Your task to perform on an android device: Open Google Maps Image 0: 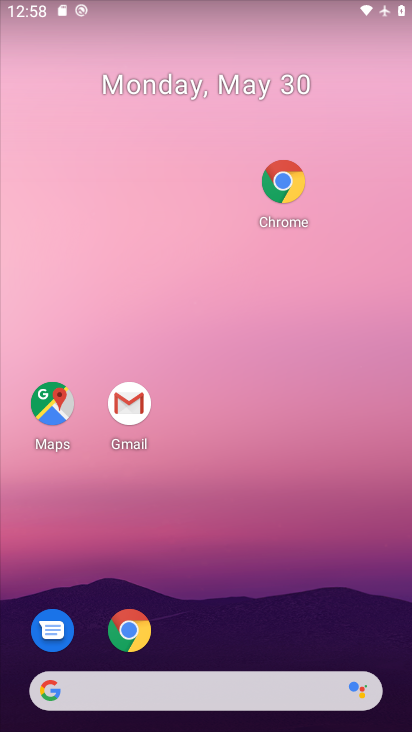
Step 0: drag from (275, 713) to (149, 135)
Your task to perform on an android device: Open Google Maps Image 1: 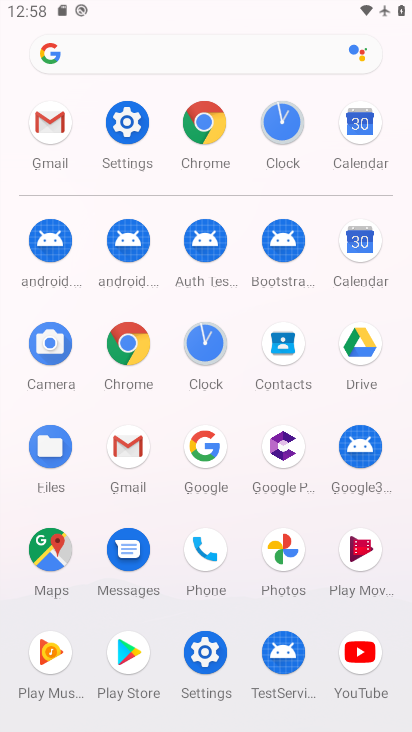
Step 1: click (45, 555)
Your task to perform on an android device: Open Google Maps Image 2: 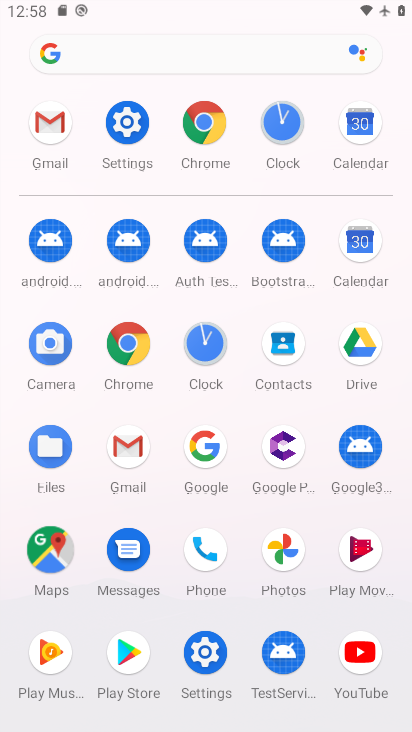
Step 2: click (47, 553)
Your task to perform on an android device: Open Google Maps Image 3: 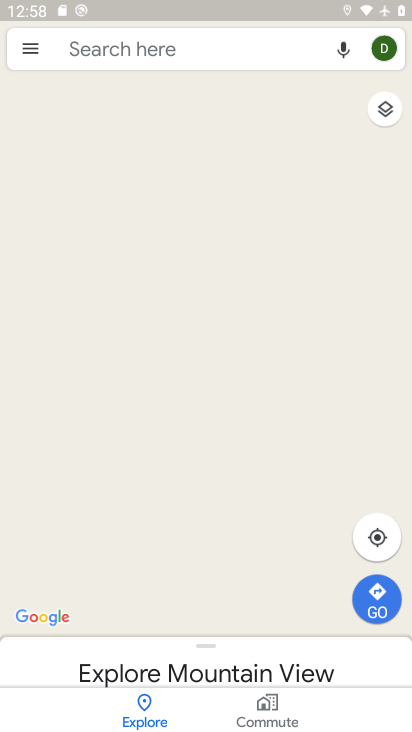
Step 3: task complete